Your task to perform on an android device: turn pop-ups off in chrome Image 0: 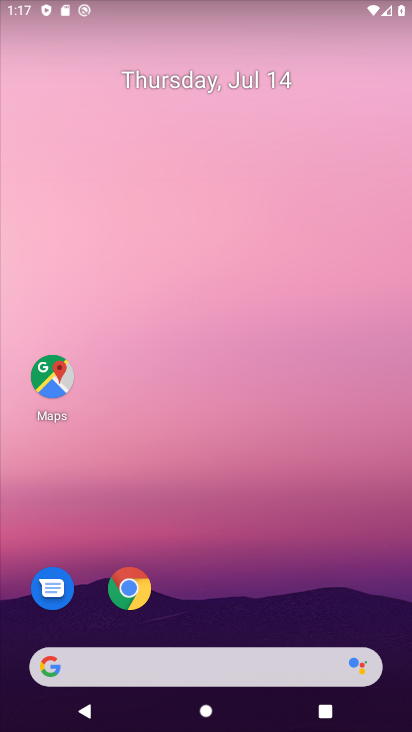
Step 0: click (138, 596)
Your task to perform on an android device: turn pop-ups off in chrome Image 1: 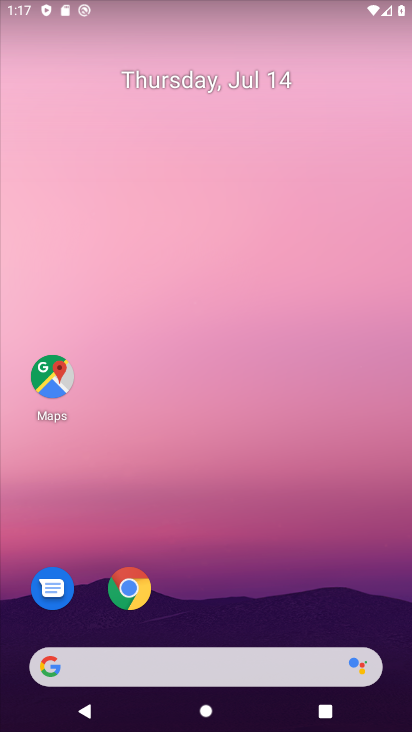
Step 1: click (138, 596)
Your task to perform on an android device: turn pop-ups off in chrome Image 2: 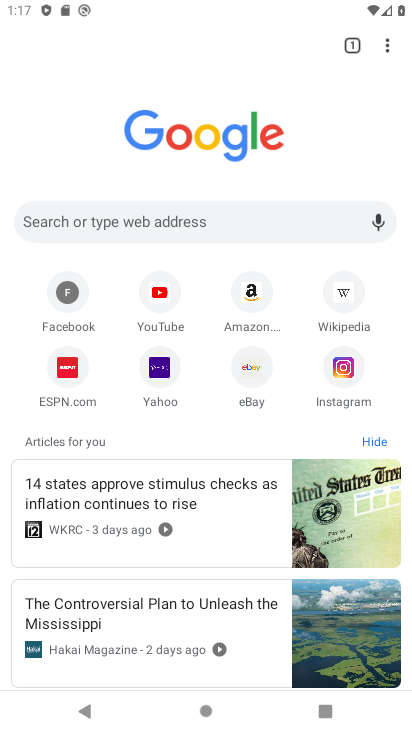
Step 2: click (379, 48)
Your task to perform on an android device: turn pop-ups off in chrome Image 3: 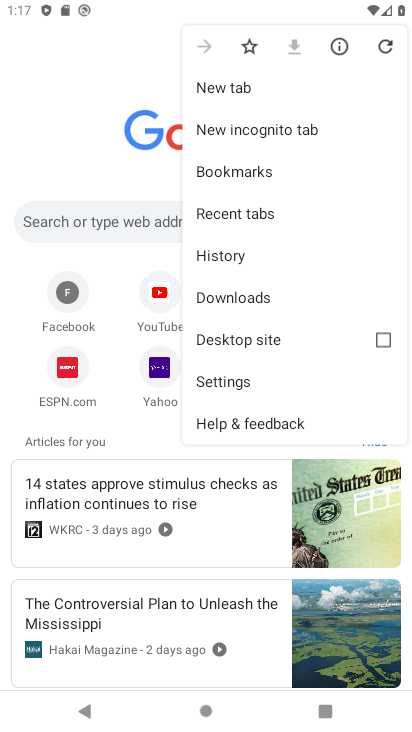
Step 3: click (220, 386)
Your task to perform on an android device: turn pop-ups off in chrome Image 4: 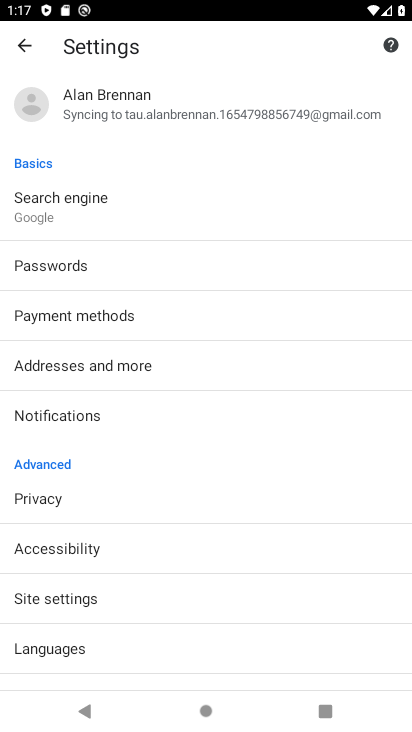
Step 4: click (64, 602)
Your task to perform on an android device: turn pop-ups off in chrome Image 5: 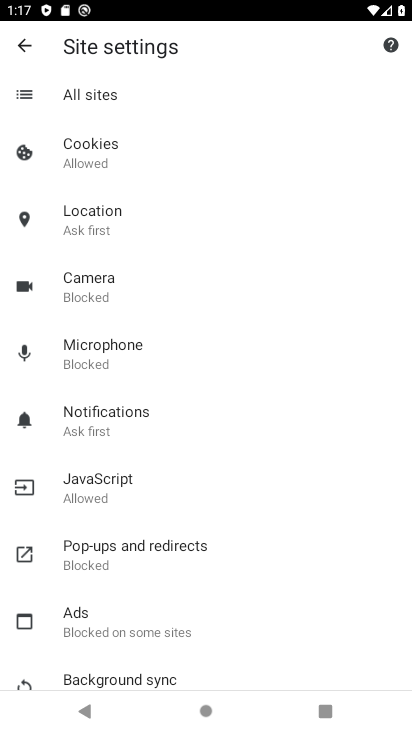
Step 5: click (90, 561)
Your task to perform on an android device: turn pop-ups off in chrome Image 6: 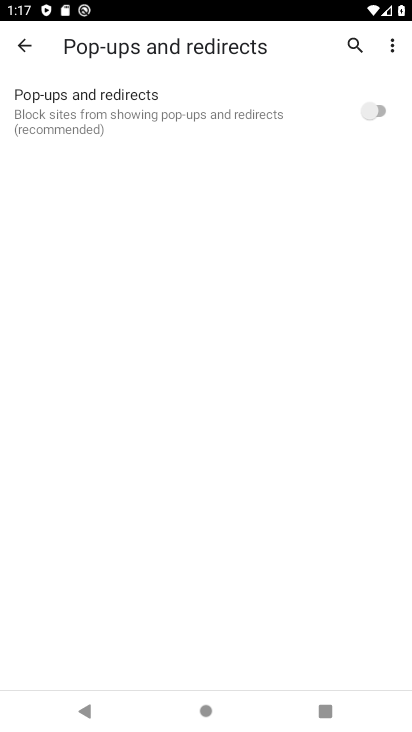
Step 6: task complete